Your task to perform on an android device: turn on the 24-hour format for clock Image 0: 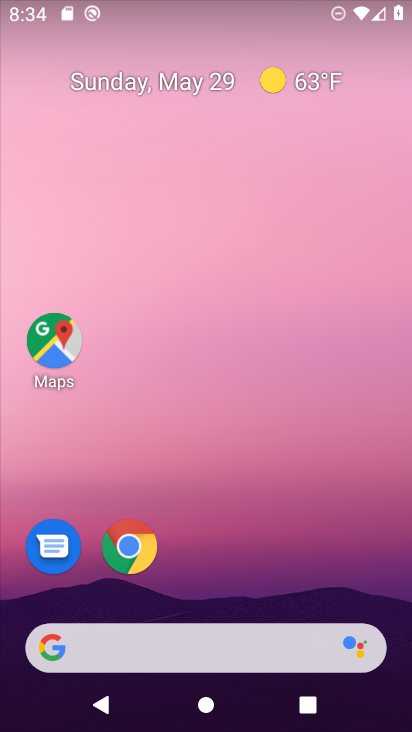
Step 0: drag from (228, 641) to (319, 108)
Your task to perform on an android device: turn on the 24-hour format for clock Image 1: 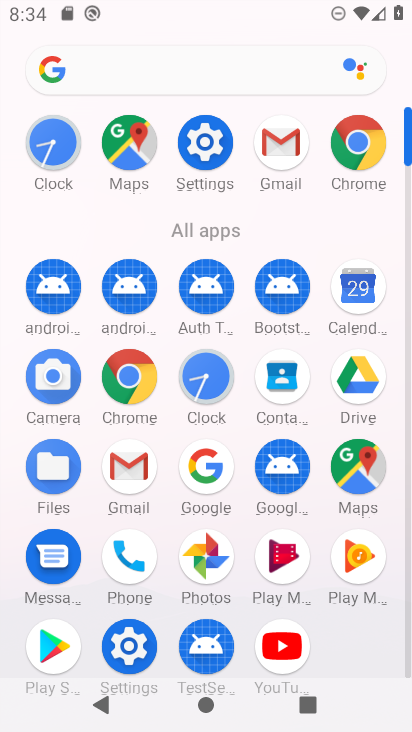
Step 1: click (205, 370)
Your task to perform on an android device: turn on the 24-hour format for clock Image 2: 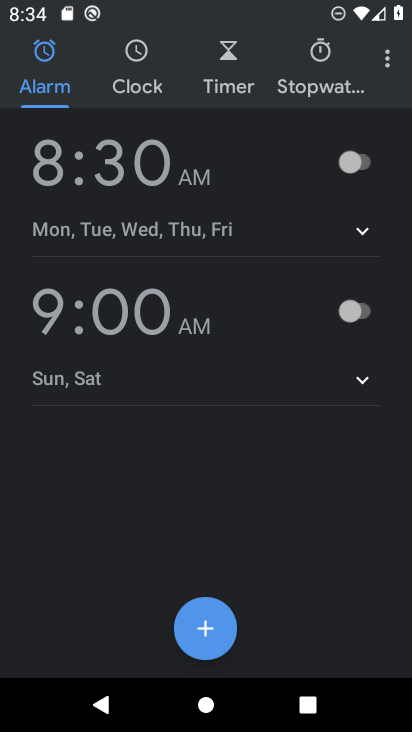
Step 2: click (384, 61)
Your task to perform on an android device: turn on the 24-hour format for clock Image 3: 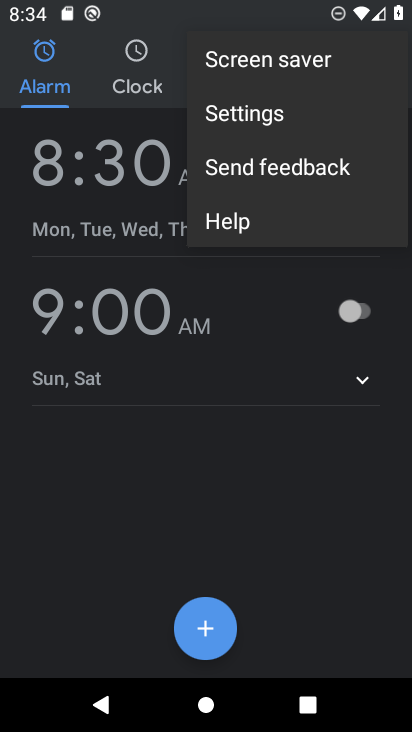
Step 3: click (254, 117)
Your task to perform on an android device: turn on the 24-hour format for clock Image 4: 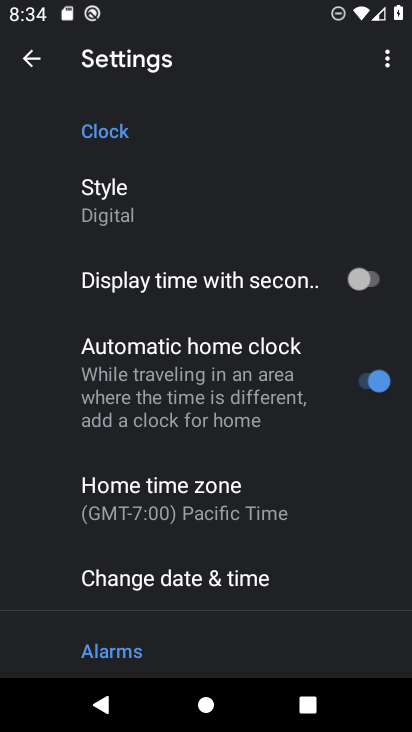
Step 4: click (218, 577)
Your task to perform on an android device: turn on the 24-hour format for clock Image 5: 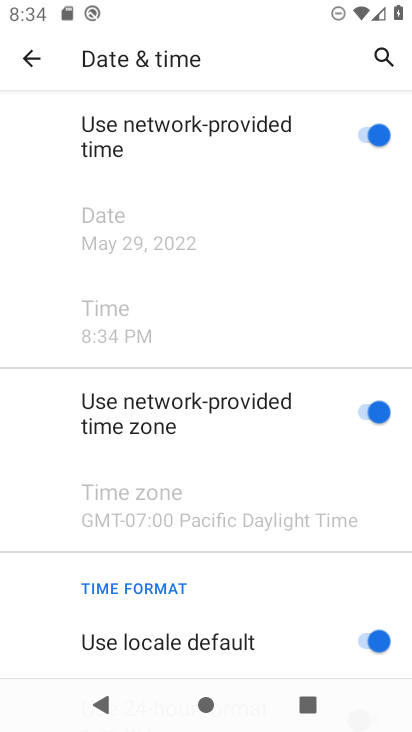
Step 5: drag from (223, 637) to (265, 183)
Your task to perform on an android device: turn on the 24-hour format for clock Image 6: 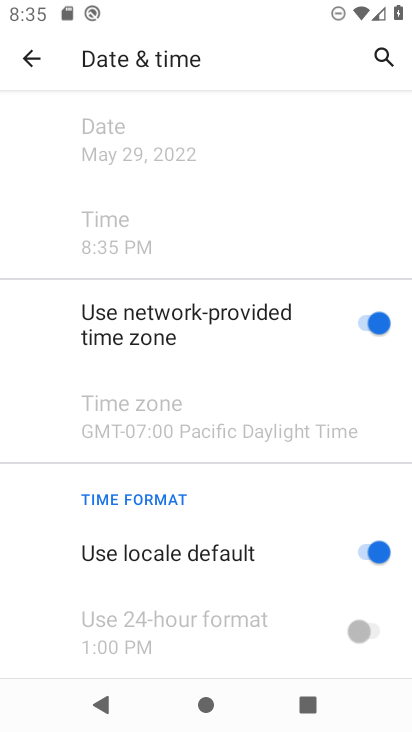
Step 6: click (376, 633)
Your task to perform on an android device: turn on the 24-hour format for clock Image 7: 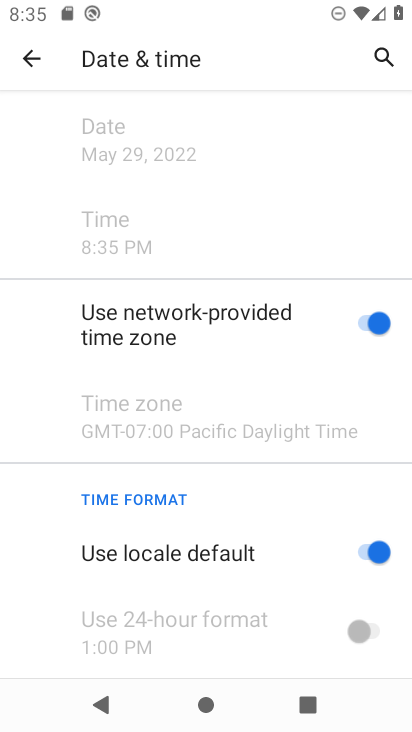
Step 7: click (365, 543)
Your task to perform on an android device: turn on the 24-hour format for clock Image 8: 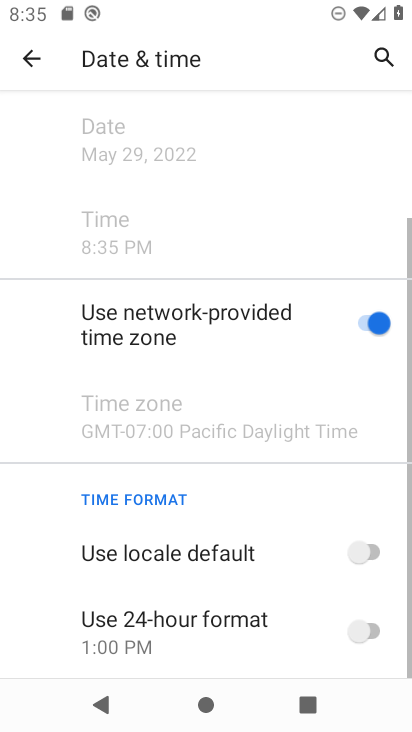
Step 8: click (373, 627)
Your task to perform on an android device: turn on the 24-hour format for clock Image 9: 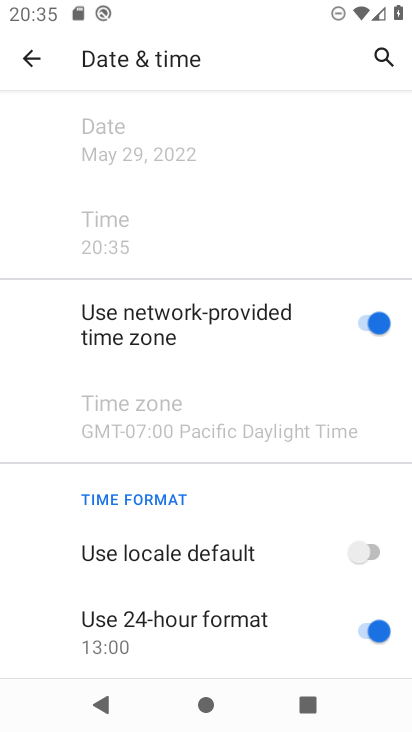
Step 9: task complete